Your task to perform on an android device: See recent photos Image 0: 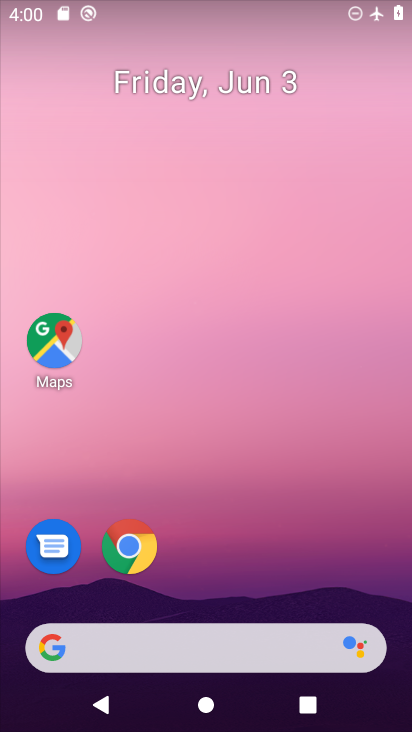
Step 0: drag from (252, 571) to (323, 16)
Your task to perform on an android device: See recent photos Image 1: 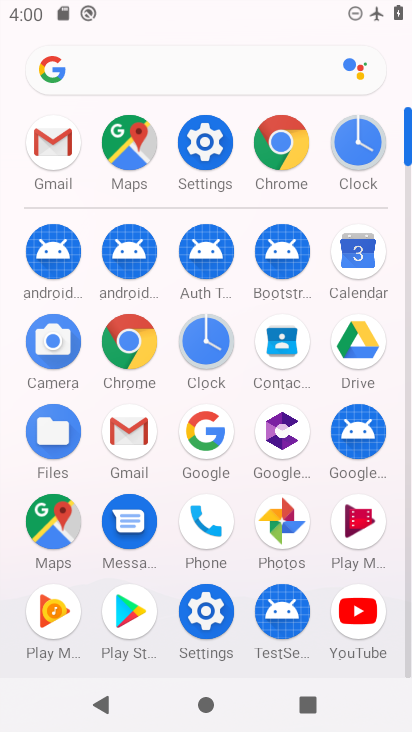
Step 1: click (279, 516)
Your task to perform on an android device: See recent photos Image 2: 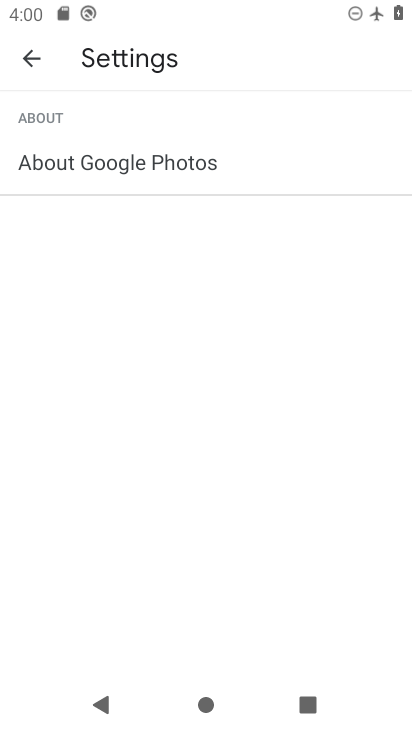
Step 2: task complete